Your task to perform on an android device: open a bookmark in the chrome app Image 0: 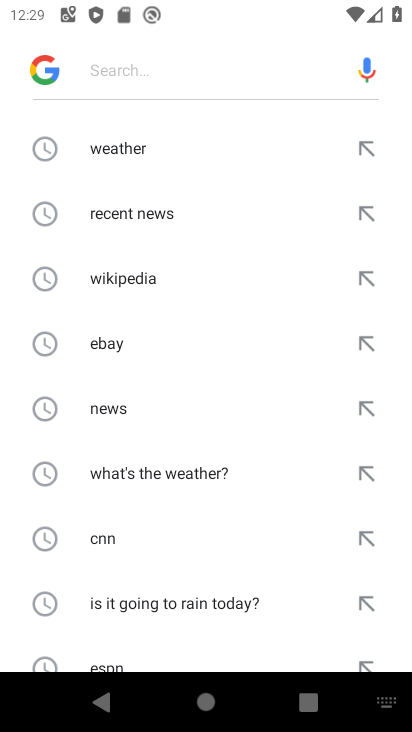
Step 0: press home button
Your task to perform on an android device: open a bookmark in the chrome app Image 1: 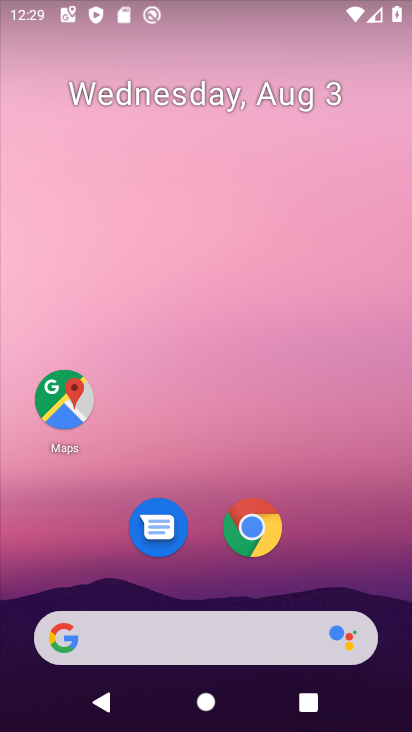
Step 1: click (270, 521)
Your task to perform on an android device: open a bookmark in the chrome app Image 2: 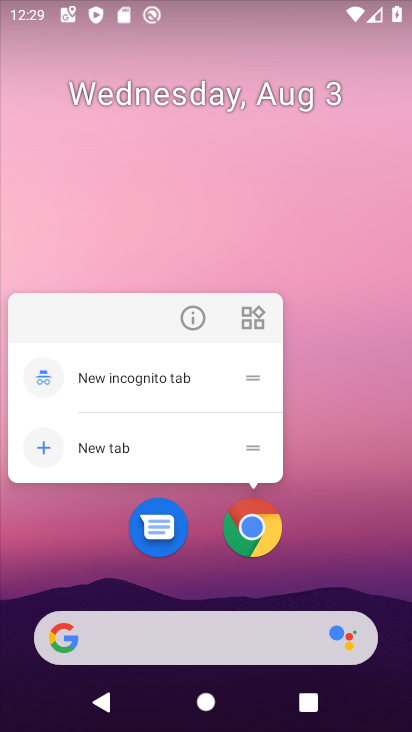
Step 2: click (255, 531)
Your task to perform on an android device: open a bookmark in the chrome app Image 3: 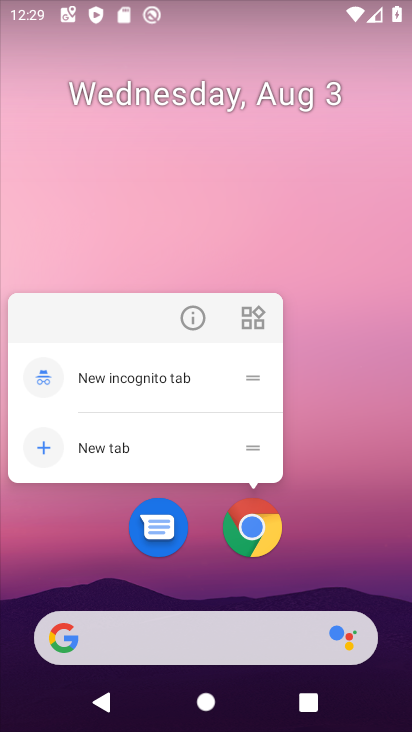
Step 3: click (256, 531)
Your task to perform on an android device: open a bookmark in the chrome app Image 4: 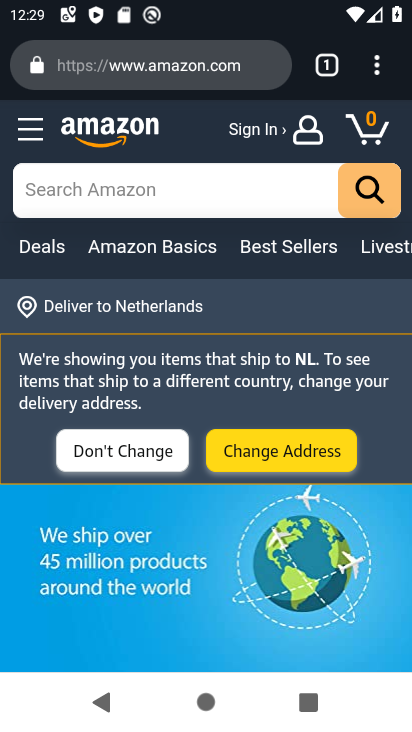
Step 4: click (375, 61)
Your task to perform on an android device: open a bookmark in the chrome app Image 5: 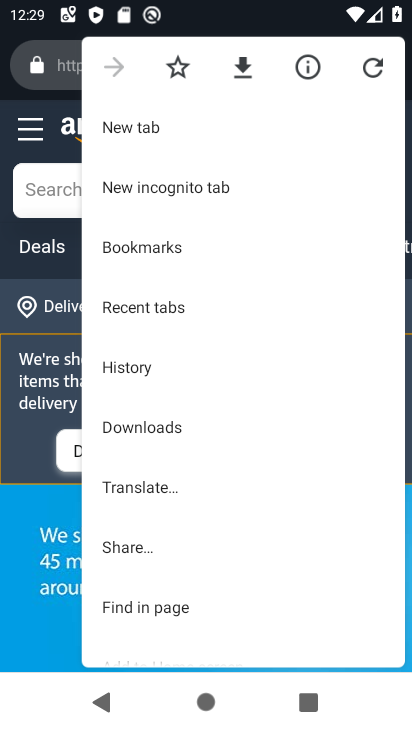
Step 5: click (153, 258)
Your task to perform on an android device: open a bookmark in the chrome app Image 6: 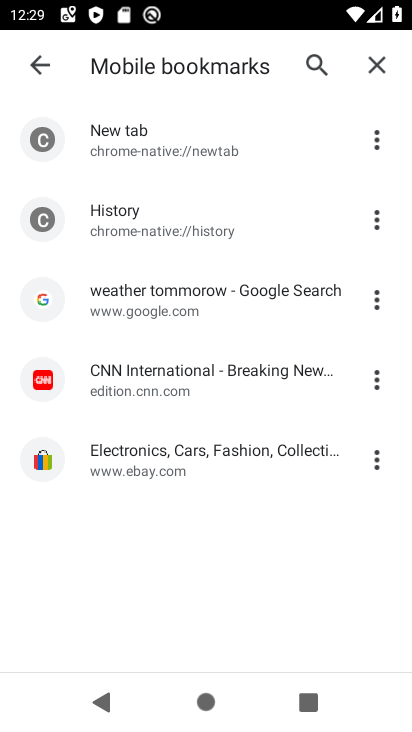
Step 6: click (149, 146)
Your task to perform on an android device: open a bookmark in the chrome app Image 7: 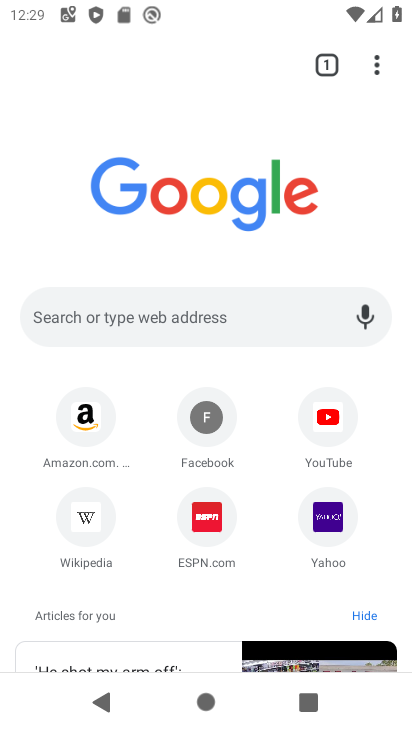
Step 7: task complete